Your task to perform on an android device: Open the stopwatch Image 0: 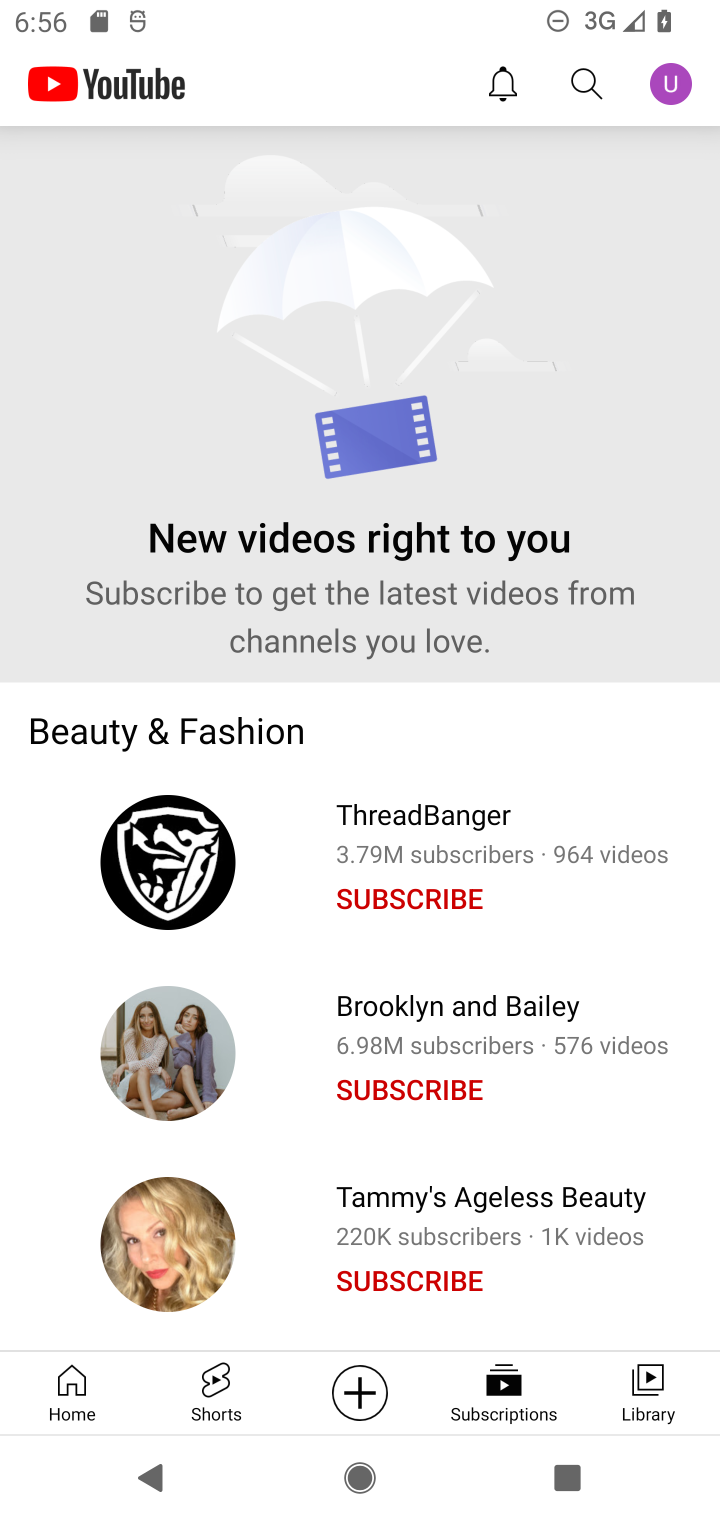
Step 0: press home button
Your task to perform on an android device: Open the stopwatch Image 1: 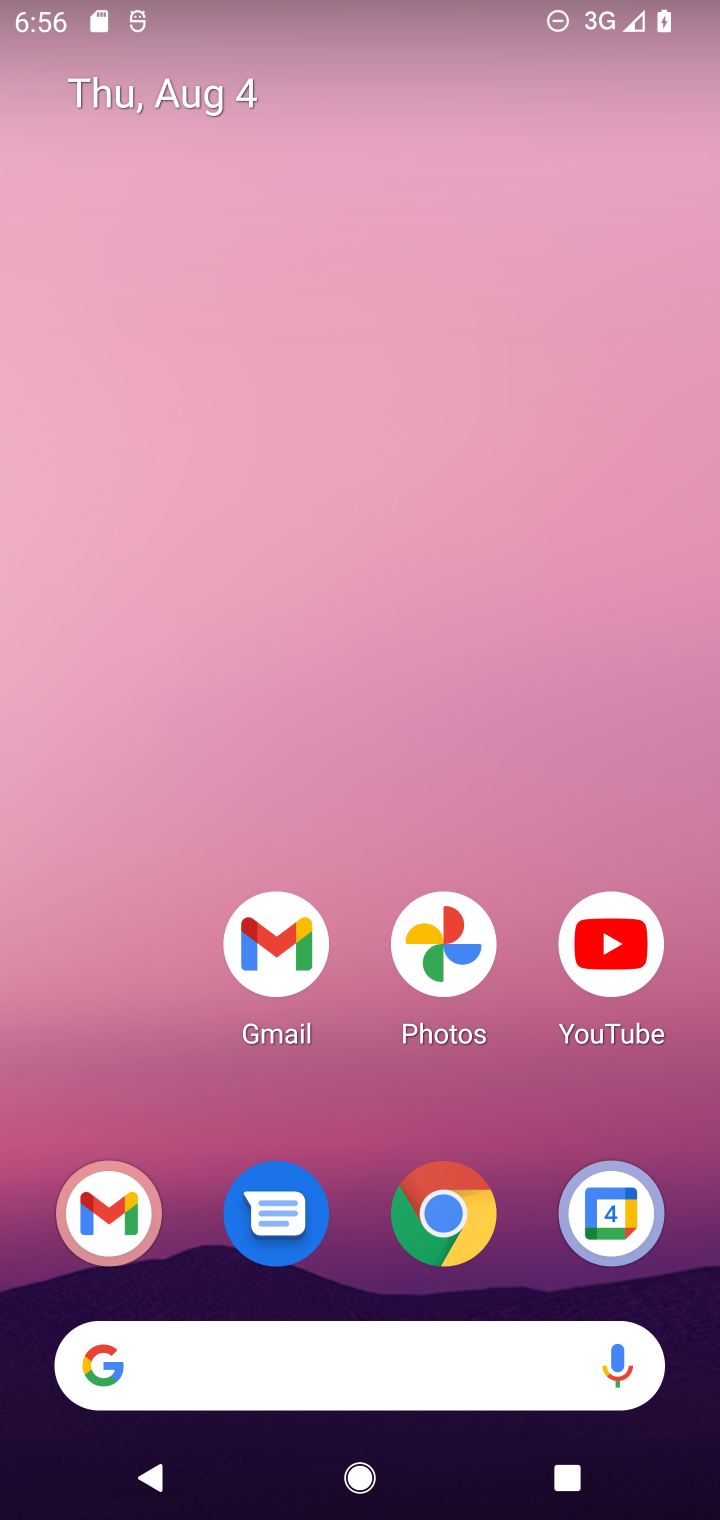
Step 1: drag from (171, 1050) to (179, 329)
Your task to perform on an android device: Open the stopwatch Image 2: 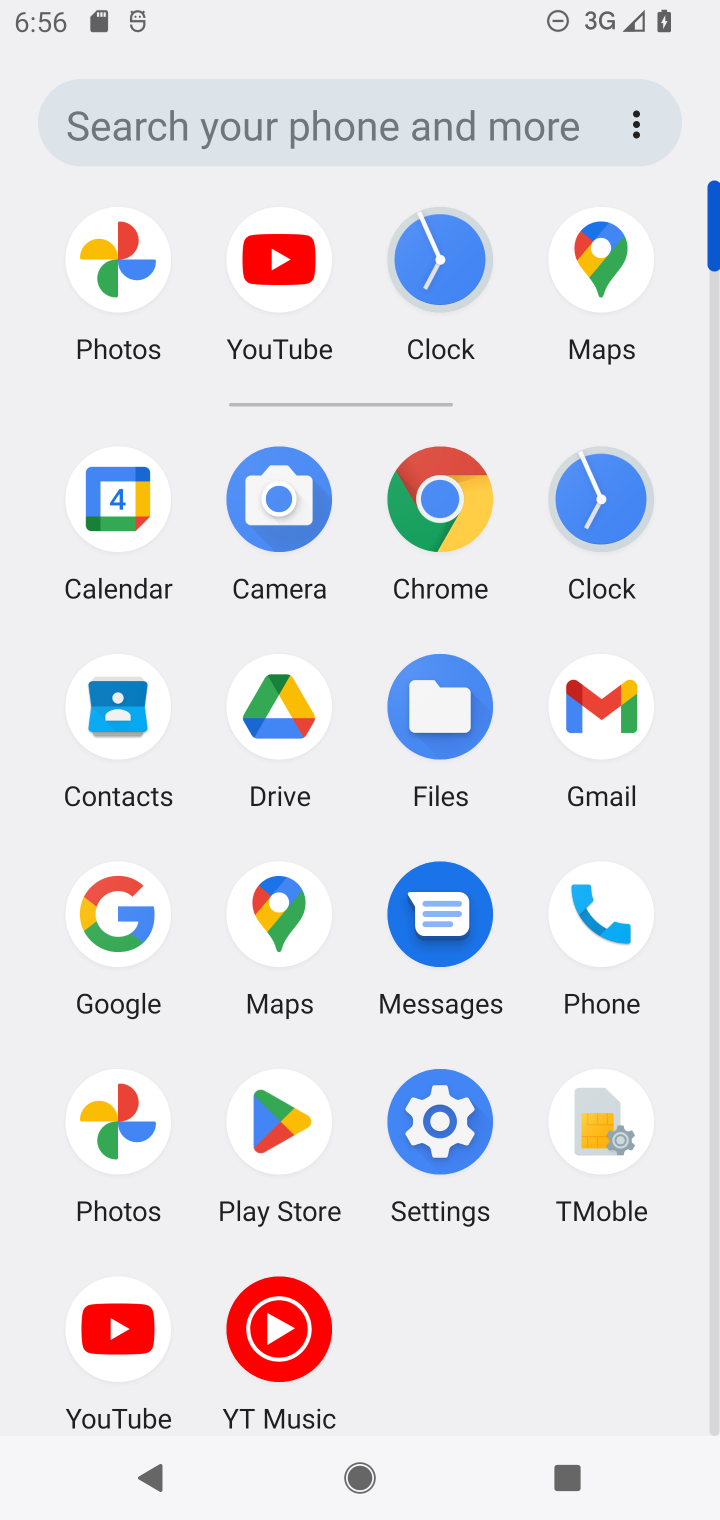
Step 2: click (613, 528)
Your task to perform on an android device: Open the stopwatch Image 3: 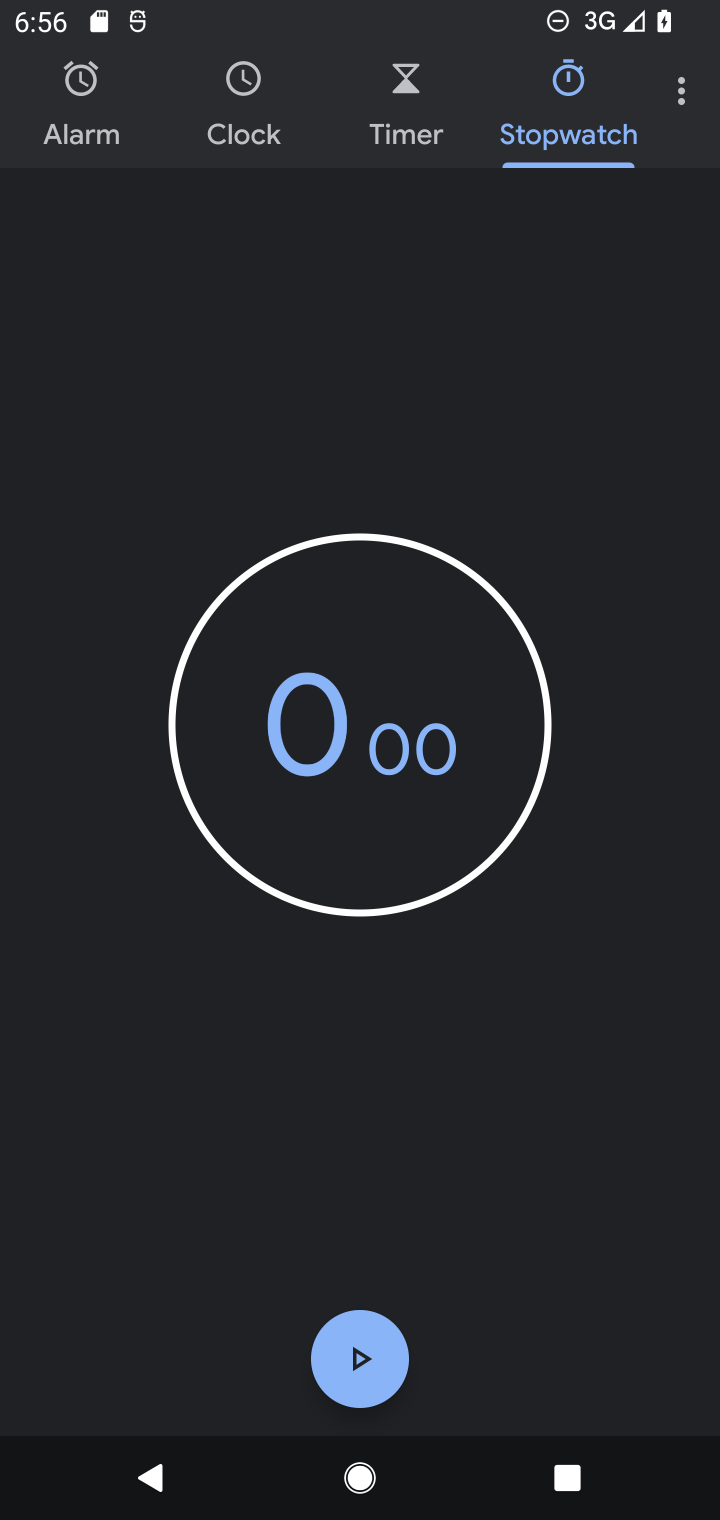
Step 3: task complete